Your task to perform on an android device: Clear all items from cart on amazon.com. Image 0: 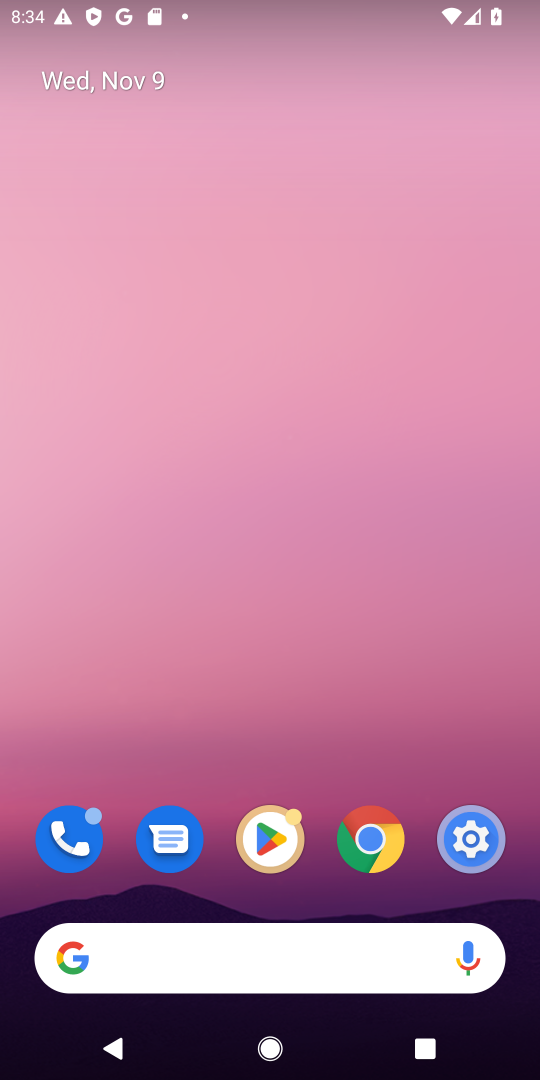
Step 0: drag from (298, 860) to (150, 86)
Your task to perform on an android device: Clear all items from cart on amazon.com. Image 1: 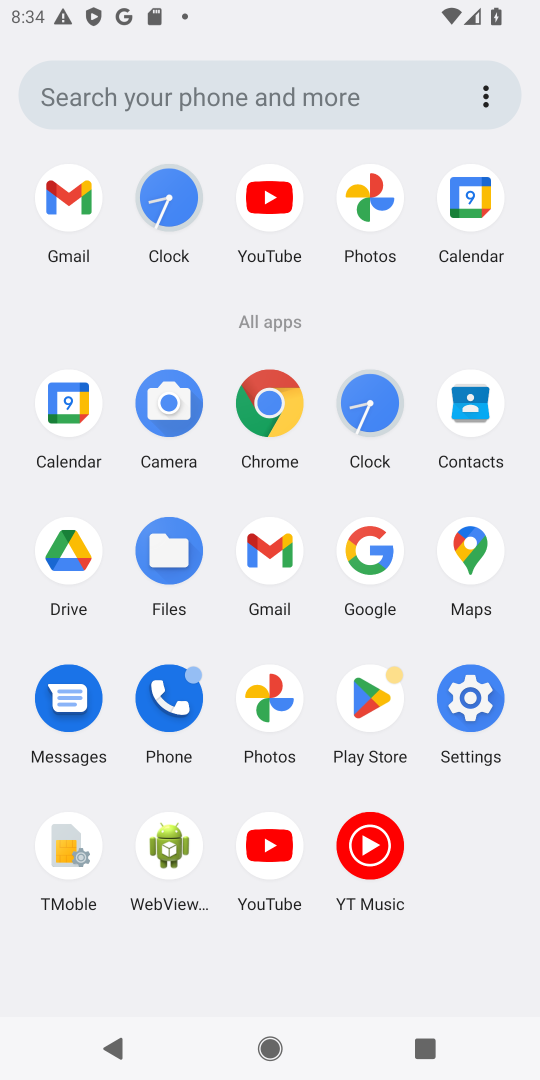
Step 1: click (279, 381)
Your task to perform on an android device: Clear all items from cart on amazon.com. Image 2: 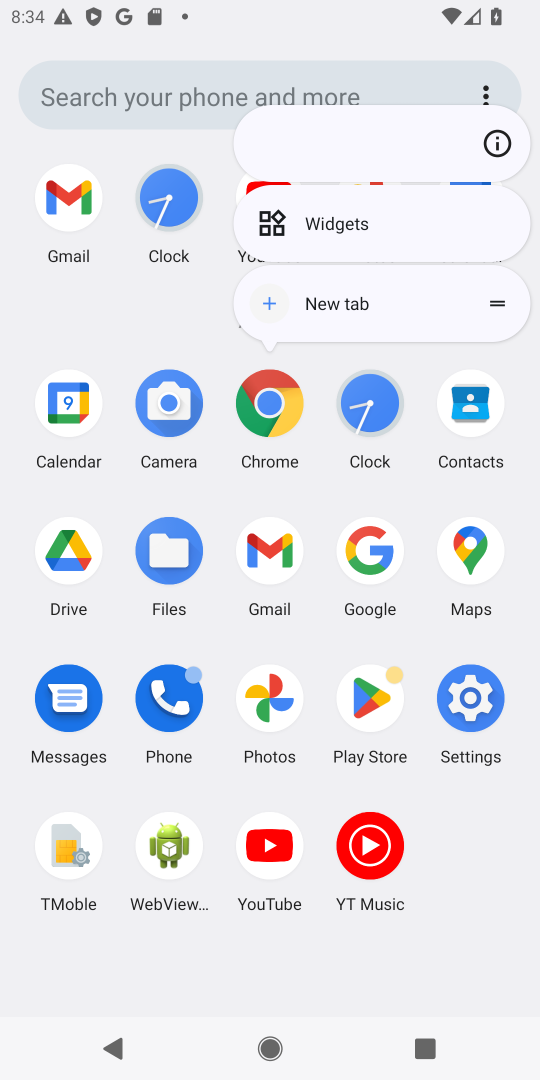
Step 2: click (279, 380)
Your task to perform on an android device: Clear all items from cart on amazon.com. Image 3: 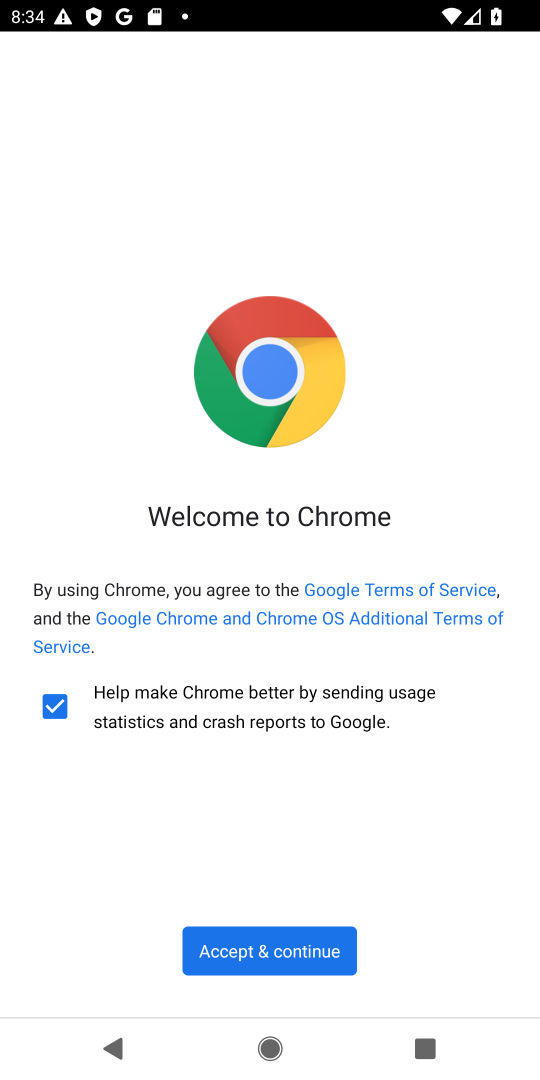
Step 3: click (296, 944)
Your task to perform on an android device: Clear all items from cart on amazon.com. Image 4: 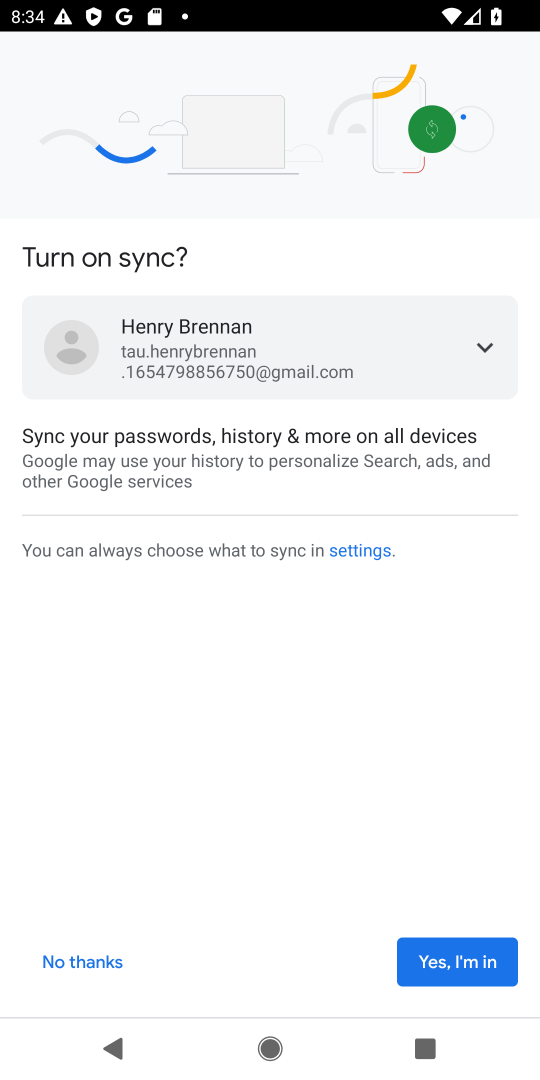
Step 4: click (474, 957)
Your task to perform on an android device: Clear all items from cart on amazon.com. Image 5: 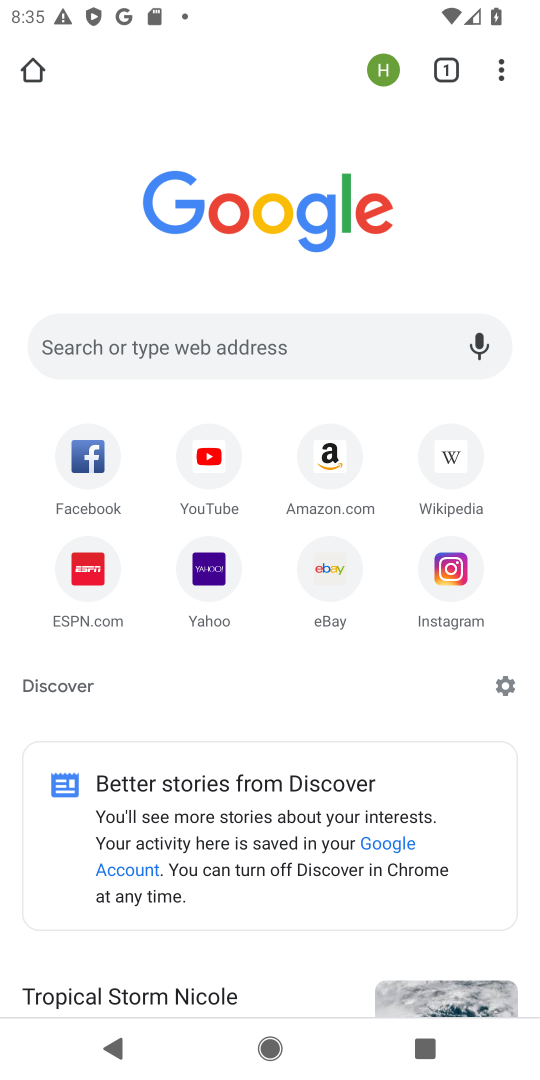
Step 5: click (175, 320)
Your task to perform on an android device: Clear all items from cart on amazon.com. Image 6: 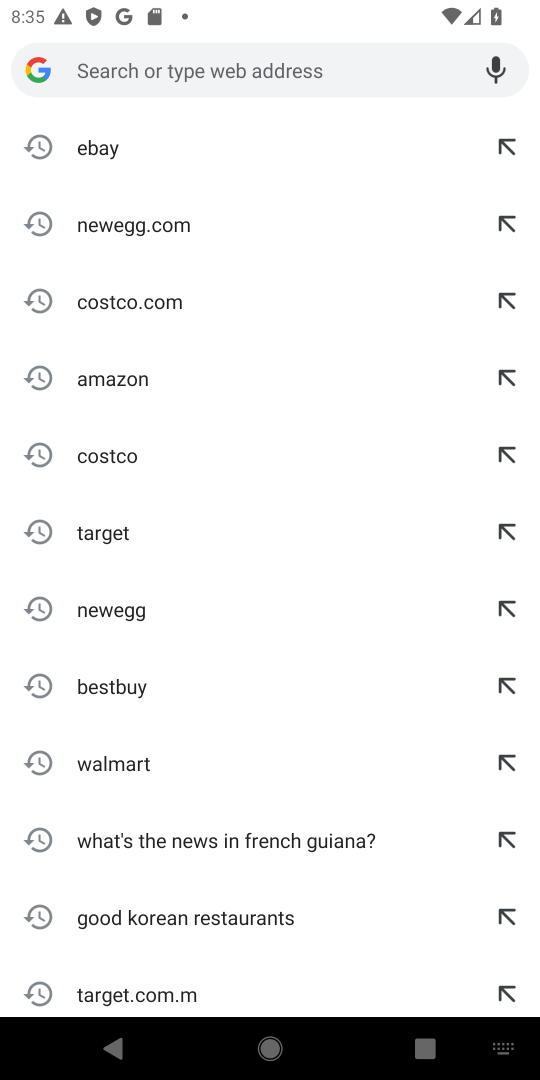
Step 6: type "amazon.com."
Your task to perform on an android device: Clear all items from cart on amazon.com. Image 7: 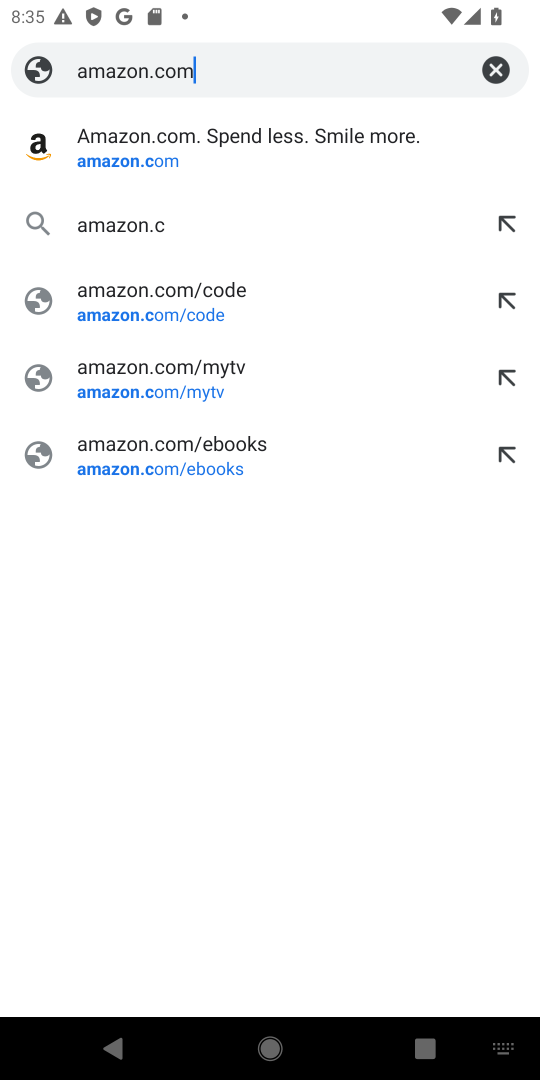
Step 7: press enter
Your task to perform on an android device: Clear all items from cart on amazon.com. Image 8: 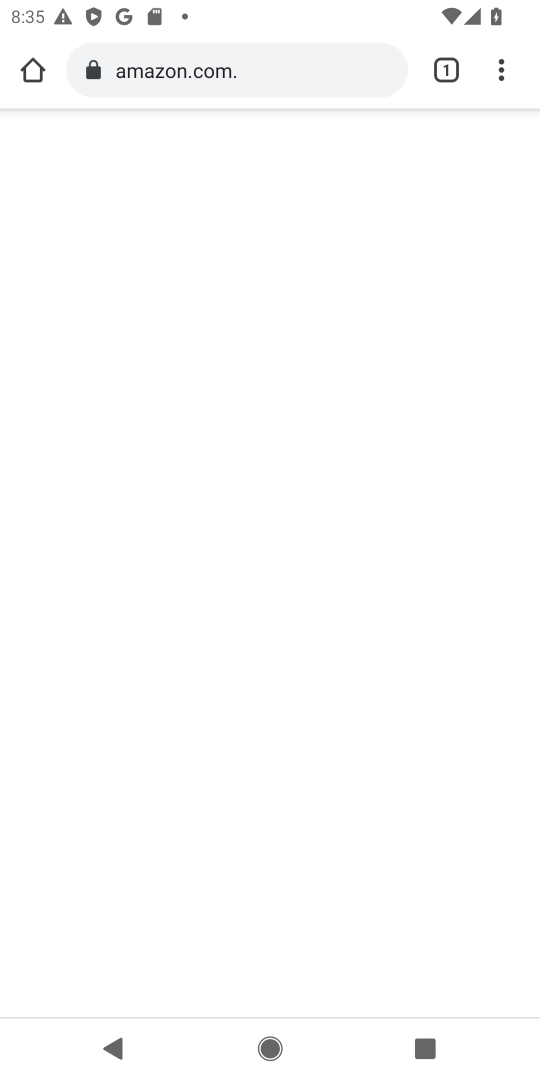
Step 8: press enter
Your task to perform on an android device: Clear all items from cart on amazon.com. Image 9: 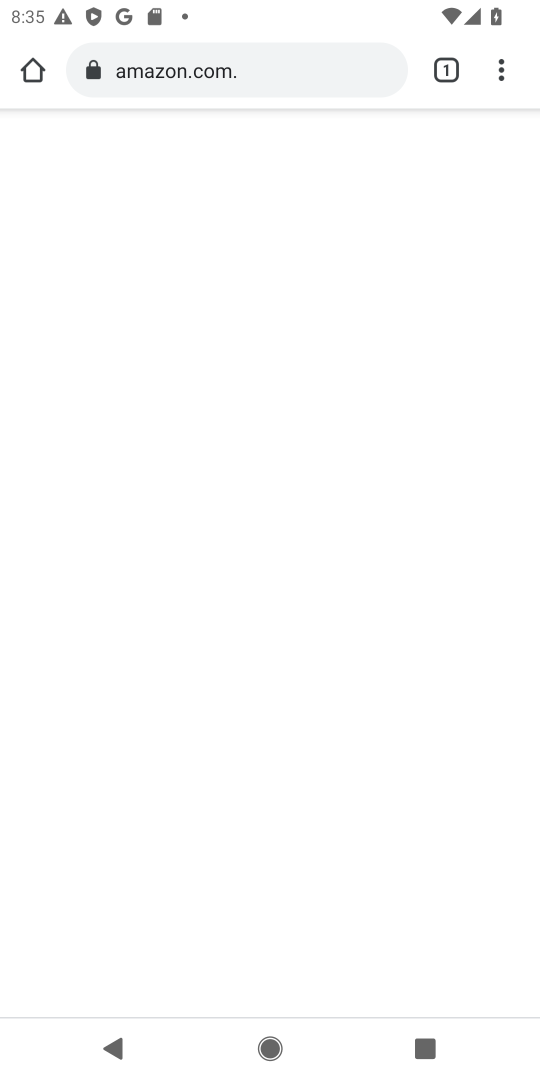
Step 9: click (137, 70)
Your task to perform on an android device: Clear all items from cart on amazon.com. Image 10: 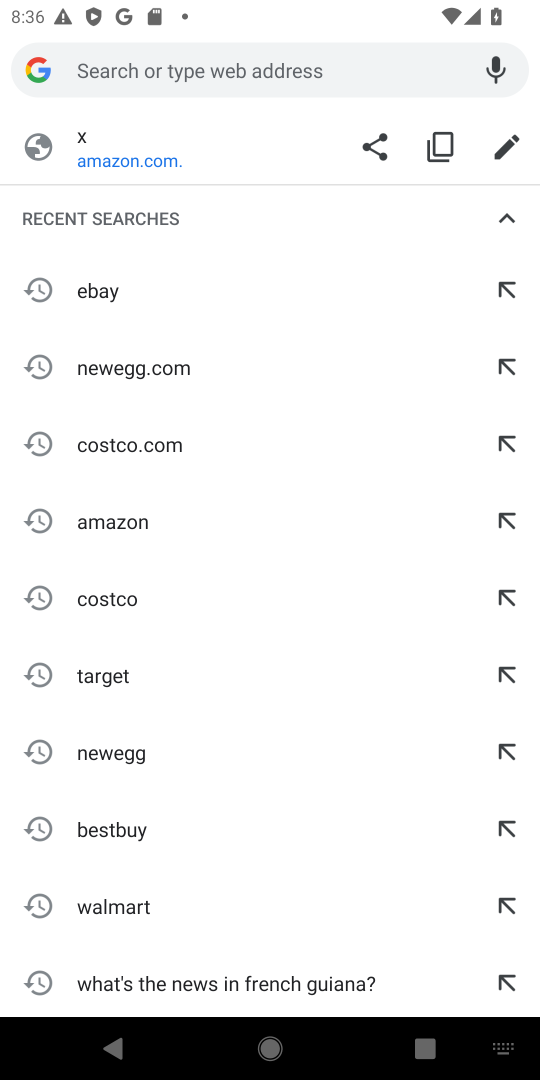
Step 10: type "amazon"
Your task to perform on an android device: Clear all items from cart on amazon.com. Image 11: 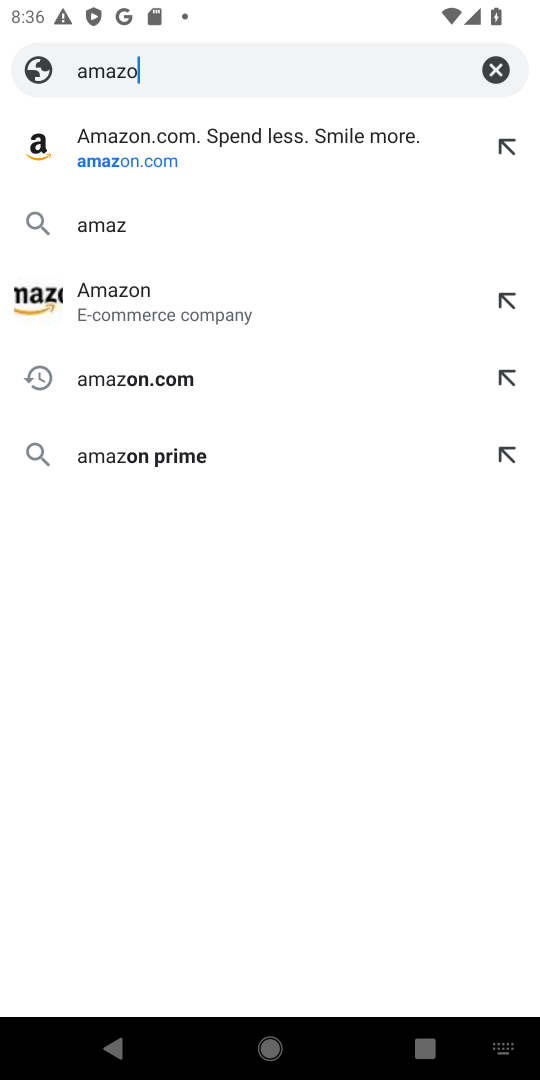
Step 11: press enter
Your task to perform on an android device: Clear all items from cart on amazon.com. Image 12: 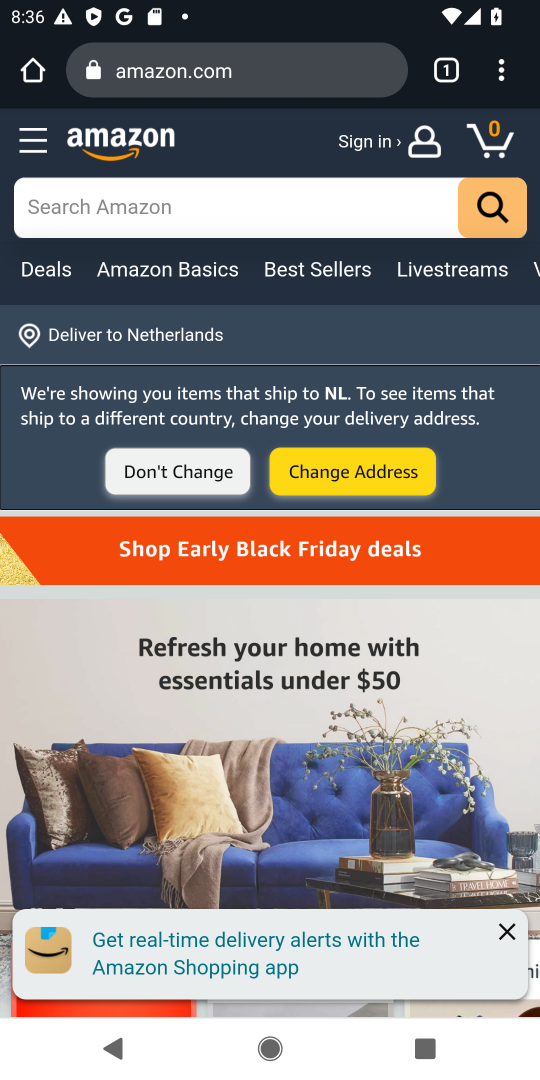
Step 12: click (92, 208)
Your task to perform on an android device: Clear all items from cart on amazon.com. Image 13: 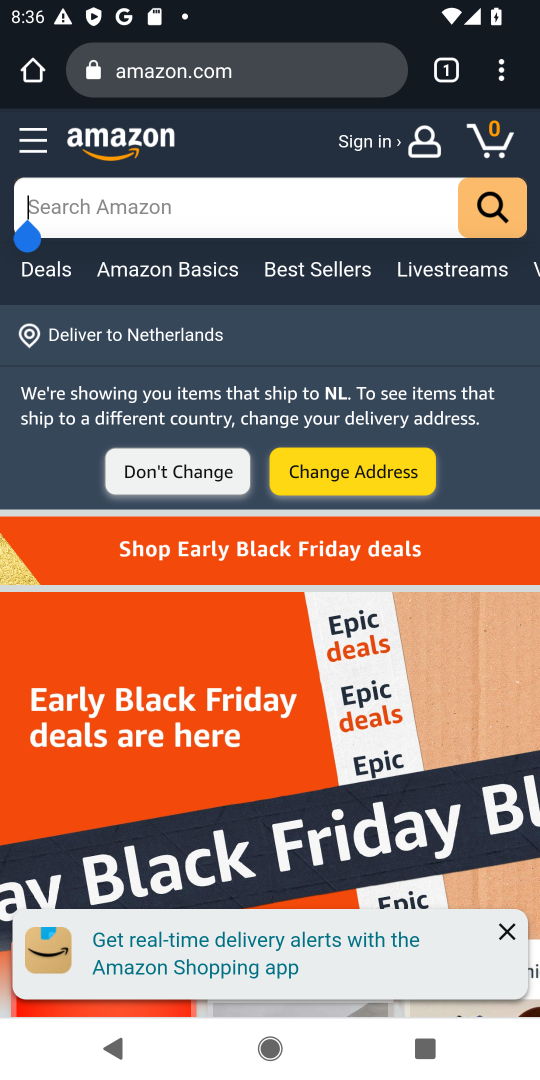
Step 13: task complete